Your task to perform on an android device: change timer sound Image 0: 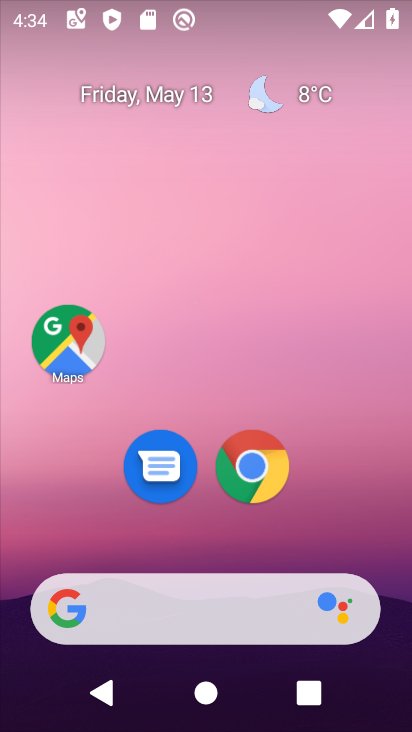
Step 0: drag from (402, 618) to (275, 13)
Your task to perform on an android device: change timer sound Image 1: 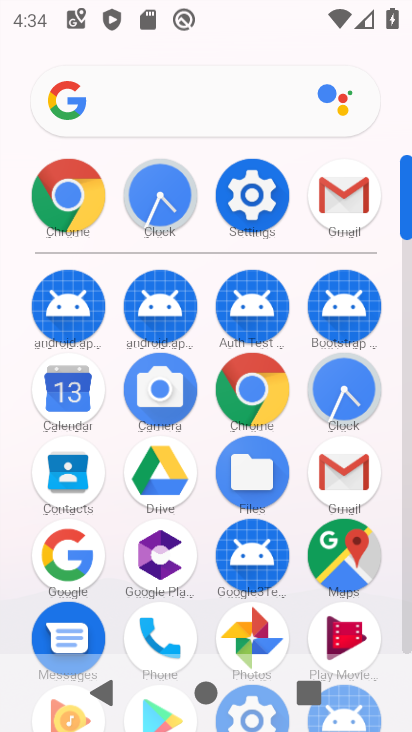
Step 1: click (342, 387)
Your task to perform on an android device: change timer sound Image 2: 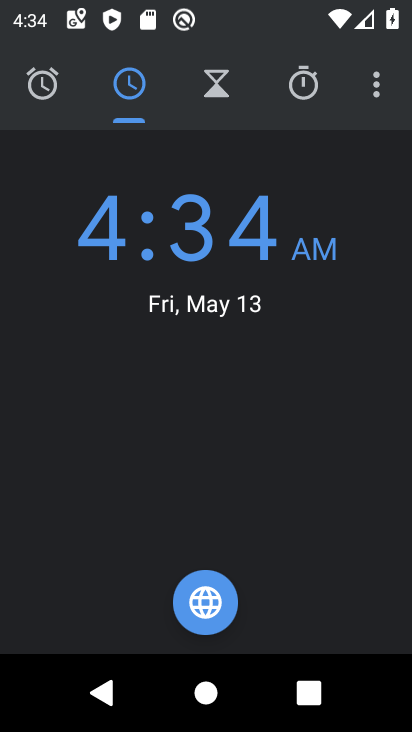
Step 2: click (375, 90)
Your task to perform on an android device: change timer sound Image 3: 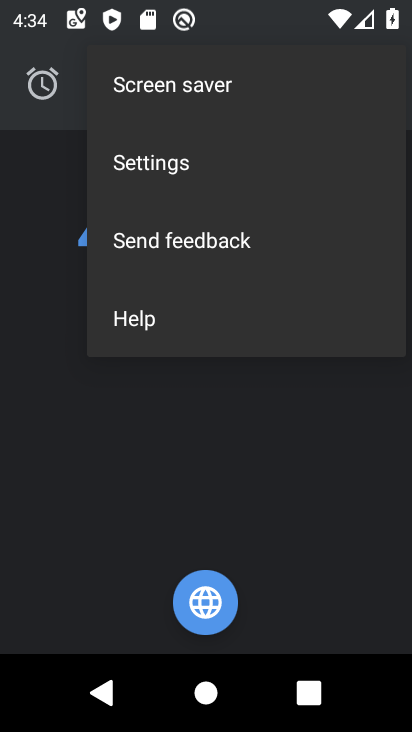
Step 3: click (161, 168)
Your task to perform on an android device: change timer sound Image 4: 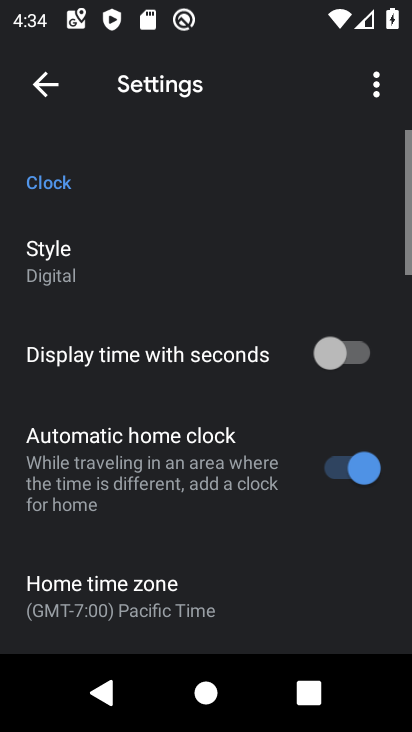
Step 4: drag from (210, 526) to (264, 108)
Your task to perform on an android device: change timer sound Image 5: 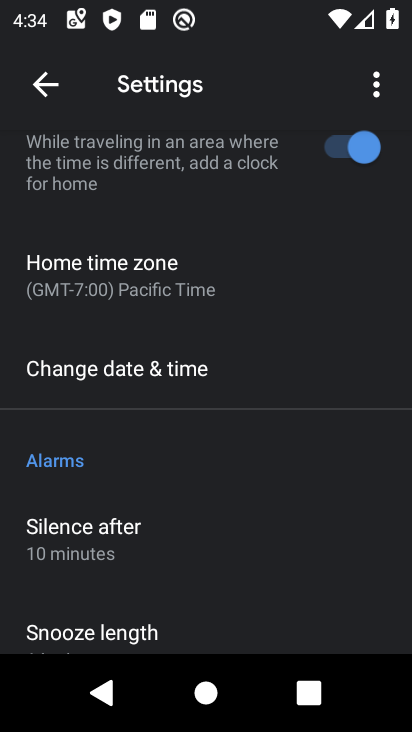
Step 5: drag from (190, 552) to (258, 152)
Your task to perform on an android device: change timer sound Image 6: 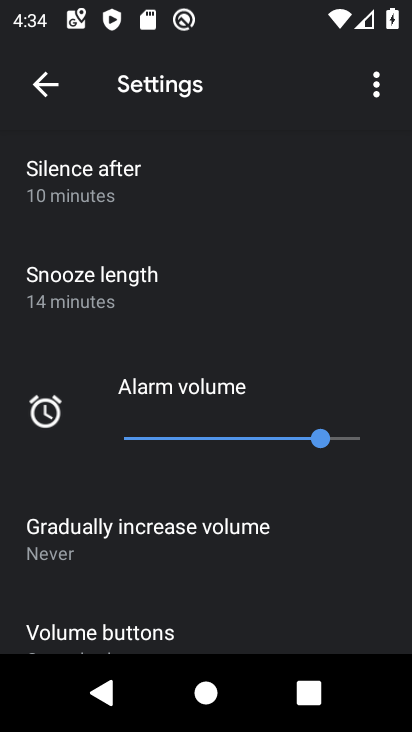
Step 6: drag from (197, 623) to (246, 174)
Your task to perform on an android device: change timer sound Image 7: 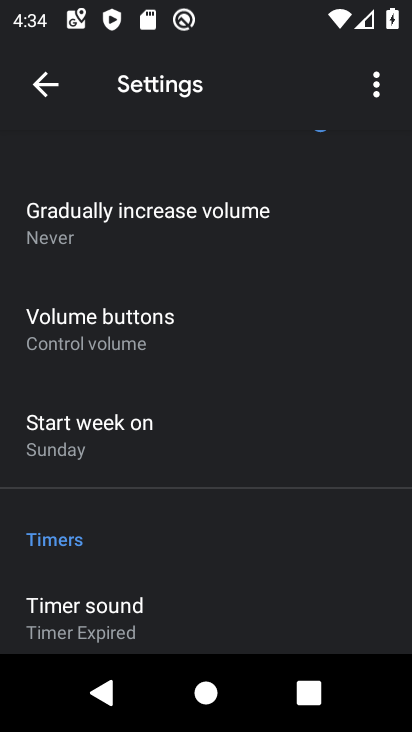
Step 7: click (107, 610)
Your task to perform on an android device: change timer sound Image 8: 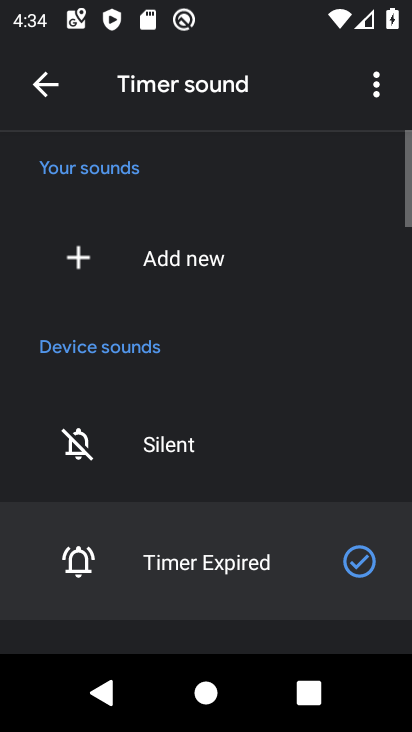
Step 8: drag from (236, 574) to (224, 109)
Your task to perform on an android device: change timer sound Image 9: 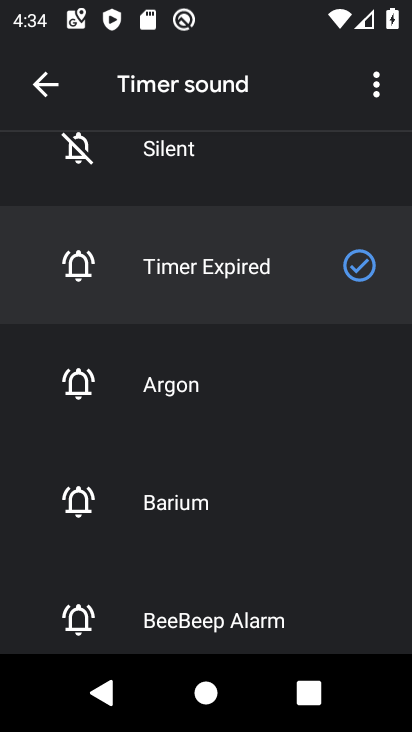
Step 9: click (205, 632)
Your task to perform on an android device: change timer sound Image 10: 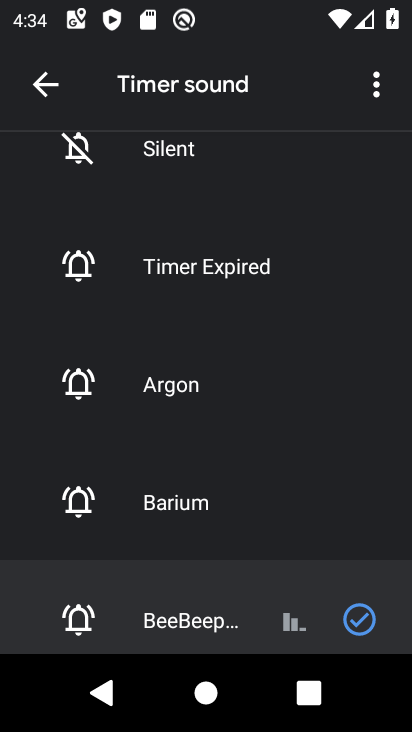
Step 10: task complete